Your task to perform on an android device: Search for vegetarian restaurants on Maps Image 0: 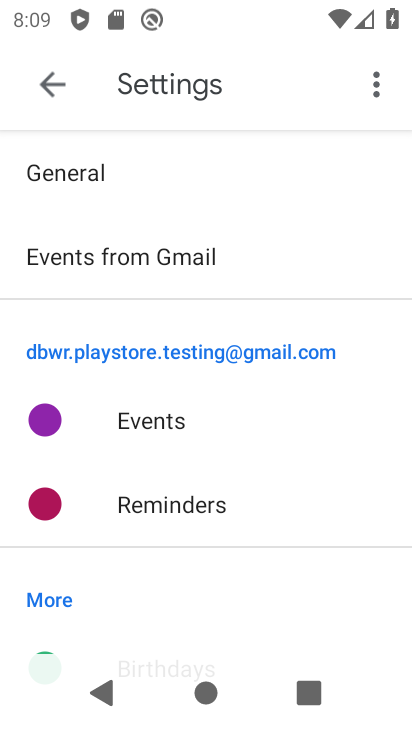
Step 0: press home button
Your task to perform on an android device: Search for vegetarian restaurants on Maps Image 1: 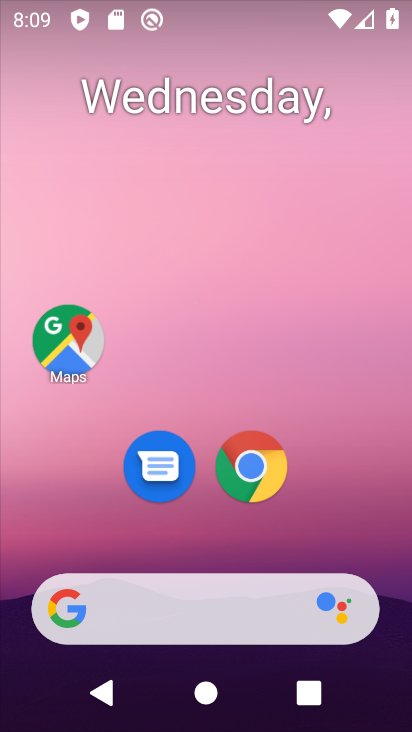
Step 1: click (52, 342)
Your task to perform on an android device: Search for vegetarian restaurants on Maps Image 2: 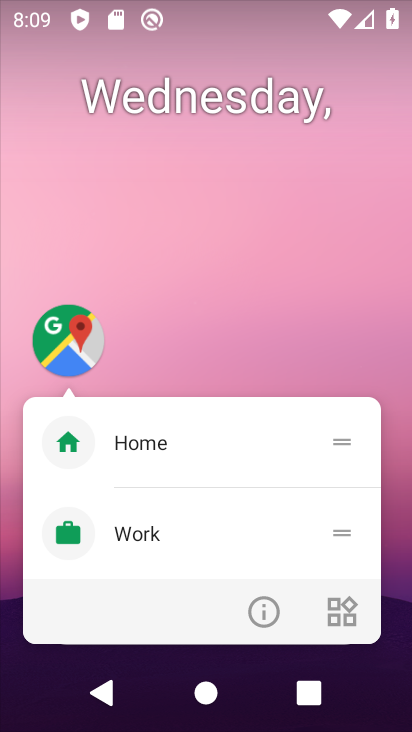
Step 2: click (59, 340)
Your task to perform on an android device: Search for vegetarian restaurants on Maps Image 3: 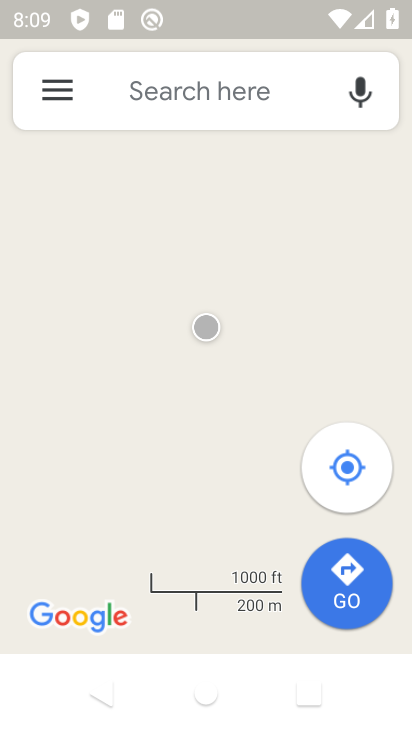
Step 3: click (228, 99)
Your task to perform on an android device: Search for vegetarian restaurants on Maps Image 4: 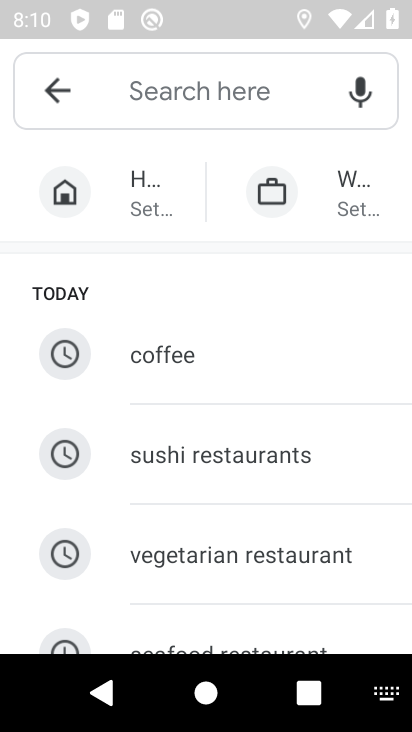
Step 4: type "vegetarian restaurants"
Your task to perform on an android device: Search for vegetarian restaurants on Maps Image 5: 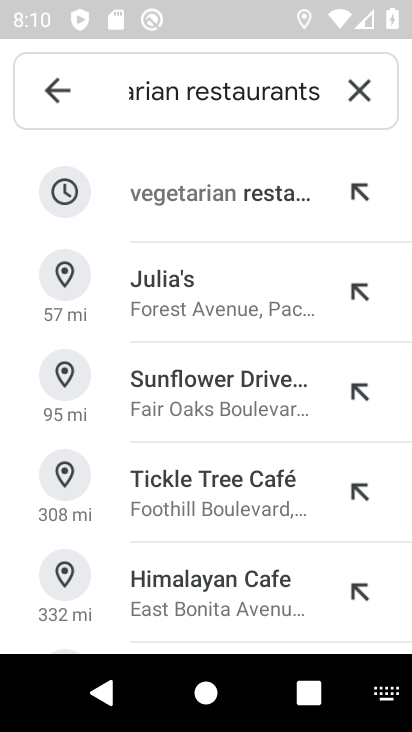
Step 5: click (252, 194)
Your task to perform on an android device: Search for vegetarian restaurants on Maps Image 6: 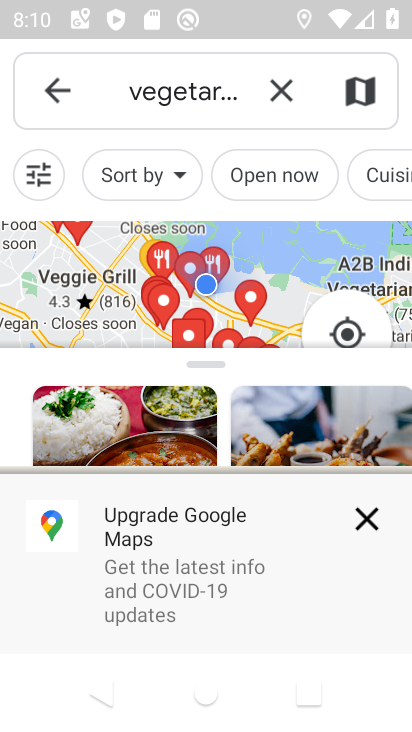
Step 6: task complete